Your task to perform on an android device: turn on the 12-hour format for clock Image 0: 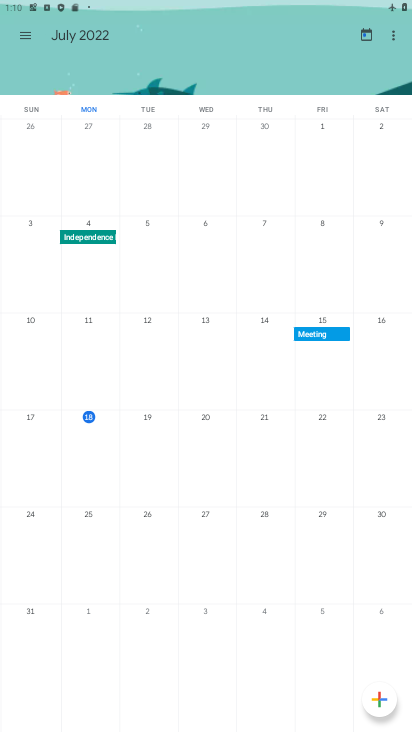
Step 0: press home button
Your task to perform on an android device: turn on the 12-hour format for clock Image 1: 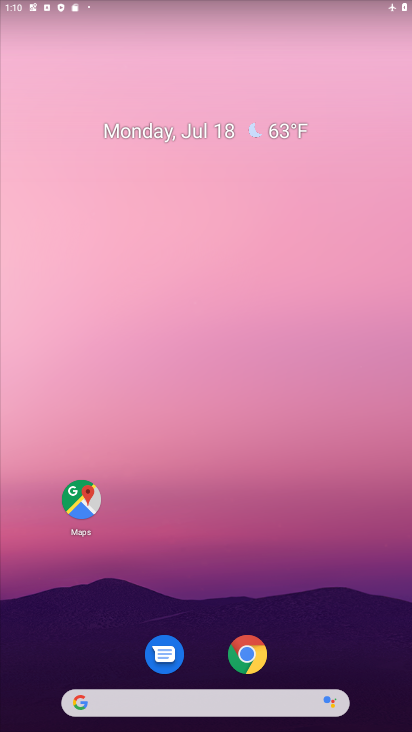
Step 1: drag from (193, 616) to (183, 156)
Your task to perform on an android device: turn on the 12-hour format for clock Image 2: 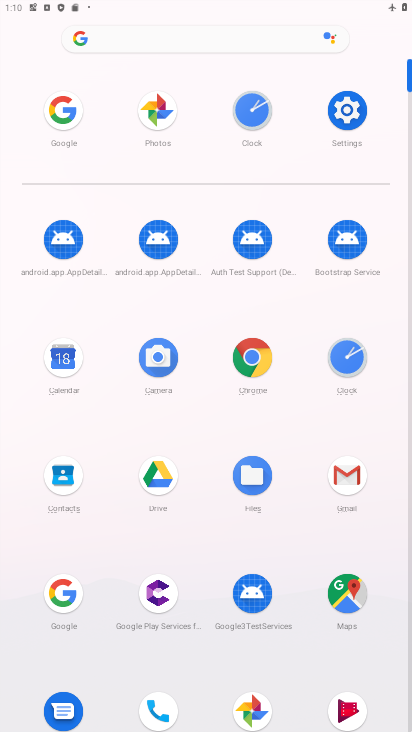
Step 2: click (362, 335)
Your task to perform on an android device: turn on the 12-hour format for clock Image 3: 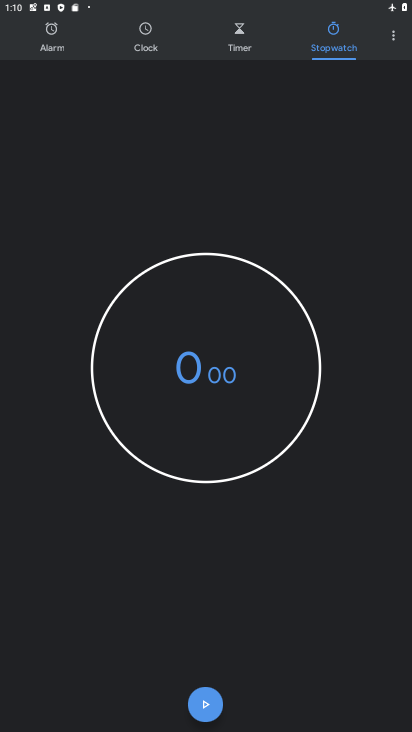
Step 3: click (390, 39)
Your task to perform on an android device: turn on the 12-hour format for clock Image 4: 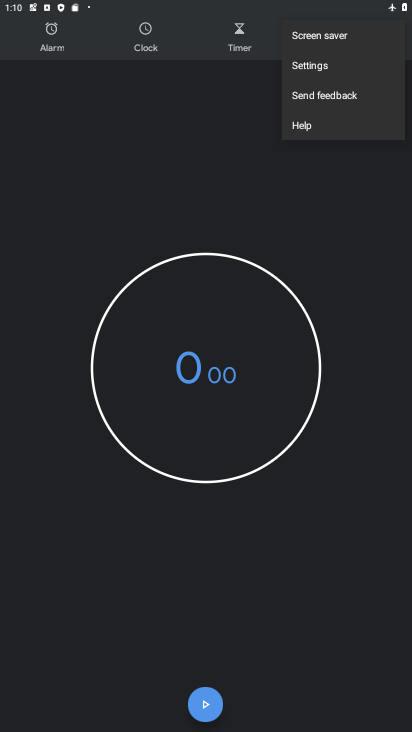
Step 4: click (296, 69)
Your task to perform on an android device: turn on the 12-hour format for clock Image 5: 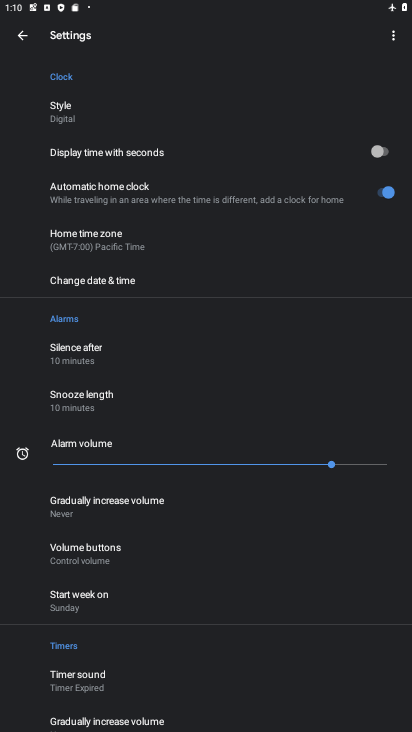
Step 5: click (159, 282)
Your task to perform on an android device: turn on the 12-hour format for clock Image 6: 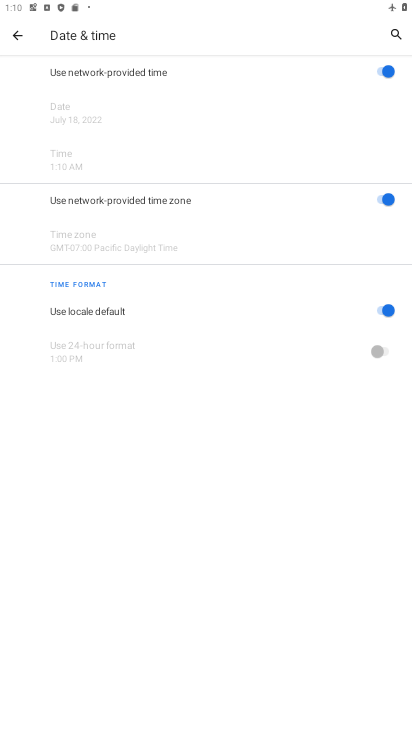
Step 6: task complete